Your task to perform on an android device: visit the assistant section in the google photos Image 0: 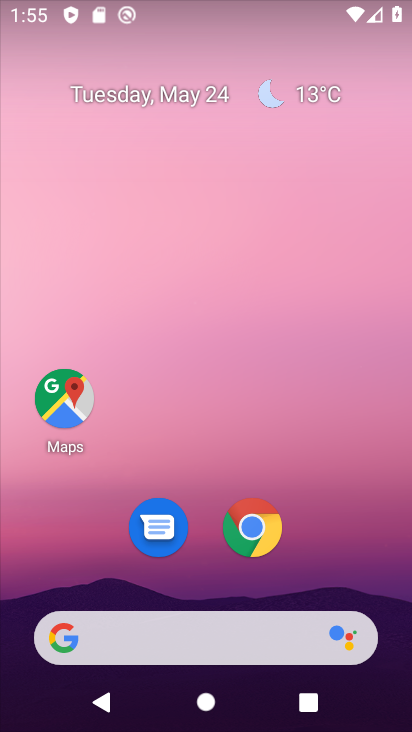
Step 0: drag from (200, 568) to (190, 50)
Your task to perform on an android device: visit the assistant section in the google photos Image 1: 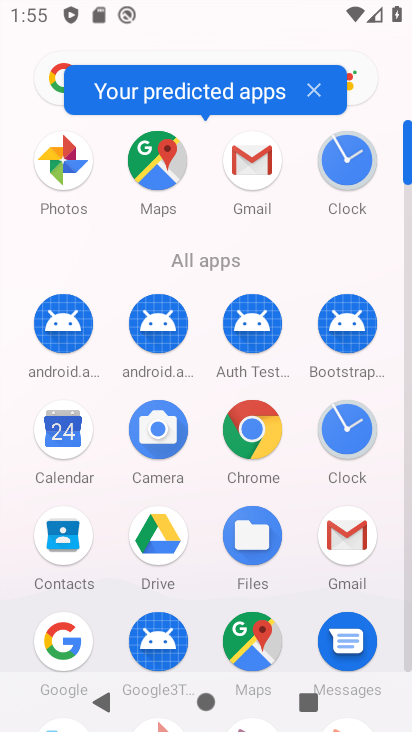
Step 1: drag from (293, 568) to (271, 176)
Your task to perform on an android device: visit the assistant section in the google photos Image 2: 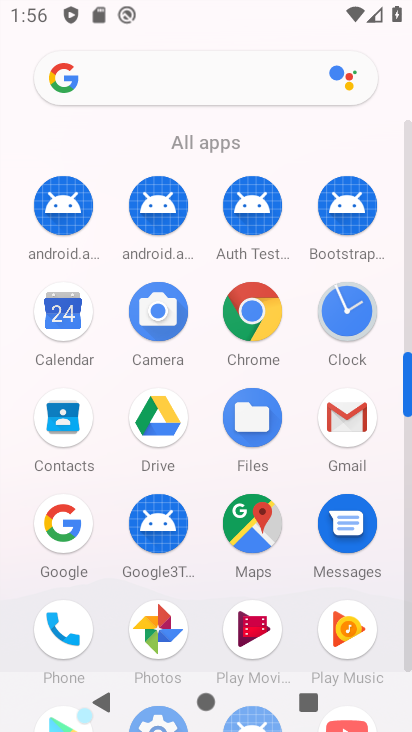
Step 2: click (171, 632)
Your task to perform on an android device: visit the assistant section in the google photos Image 3: 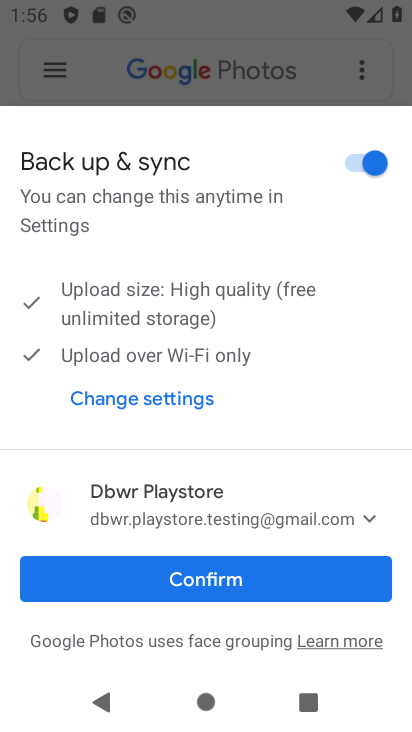
Step 3: click (175, 583)
Your task to perform on an android device: visit the assistant section in the google photos Image 4: 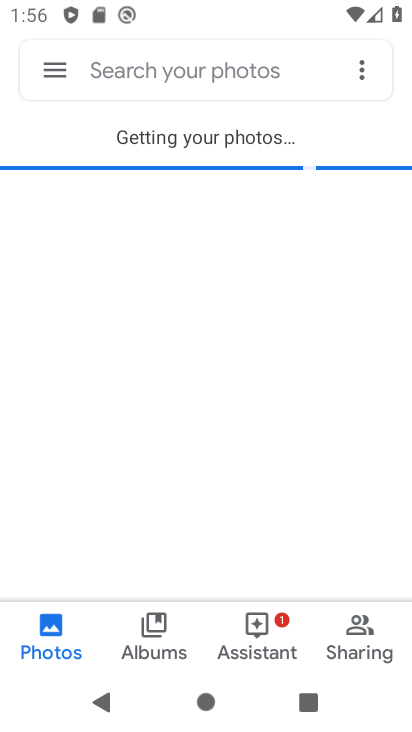
Step 4: click (243, 656)
Your task to perform on an android device: visit the assistant section in the google photos Image 5: 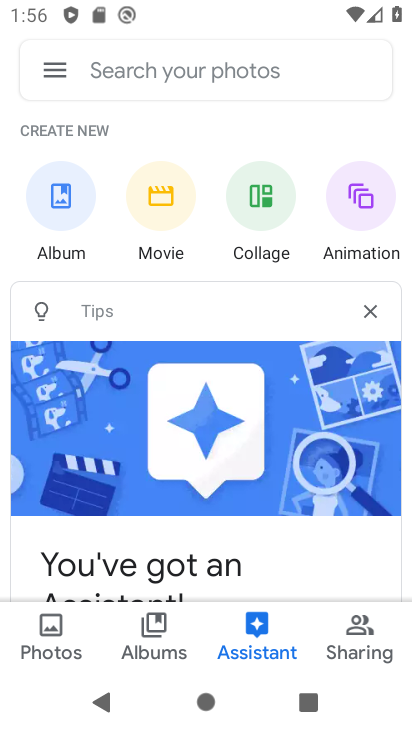
Step 5: task complete